Your task to perform on an android device: toggle airplane mode Image 0: 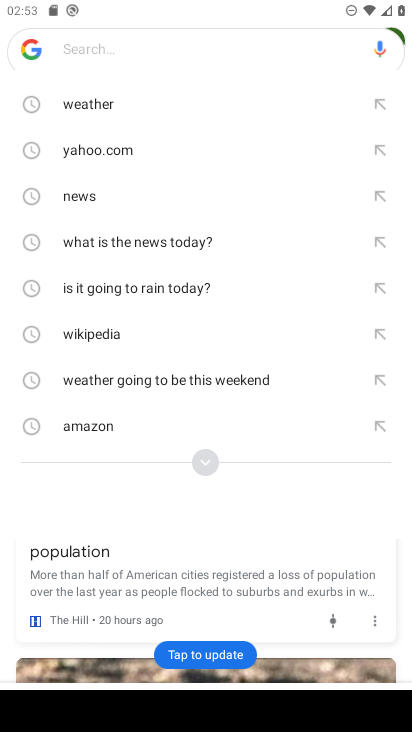
Step 0: press home button
Your task to perform on an android device: toggle airplane mode Image 1: 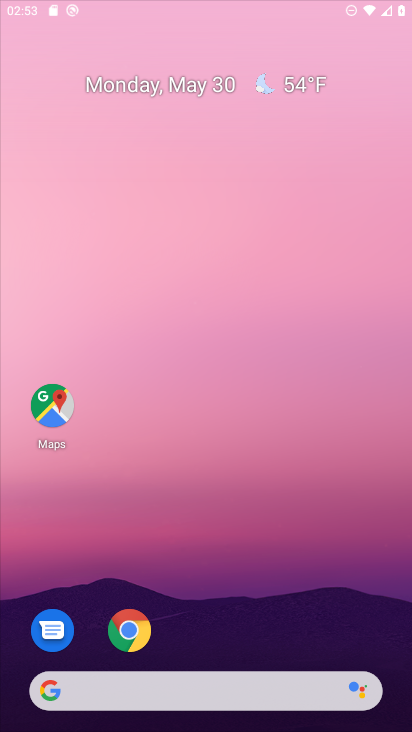
Step 1: drag from (249, 696) to (321, 176)
Your task to perform on an android device: toggle airplane mode Image 2: 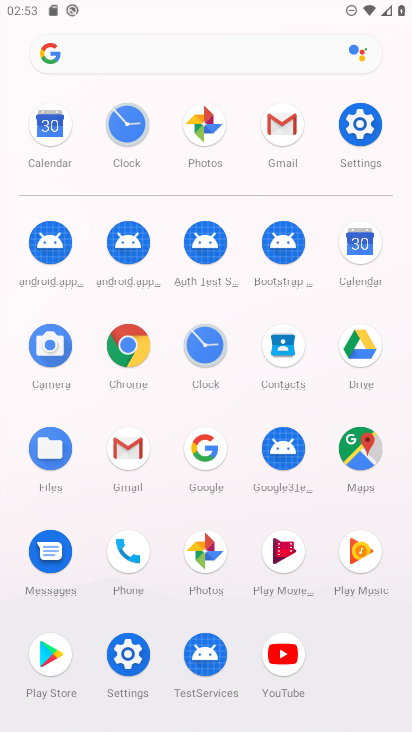
Step 2: click (367, 119)
Your task to perform on an android device: toggle airplane mode Image 3: 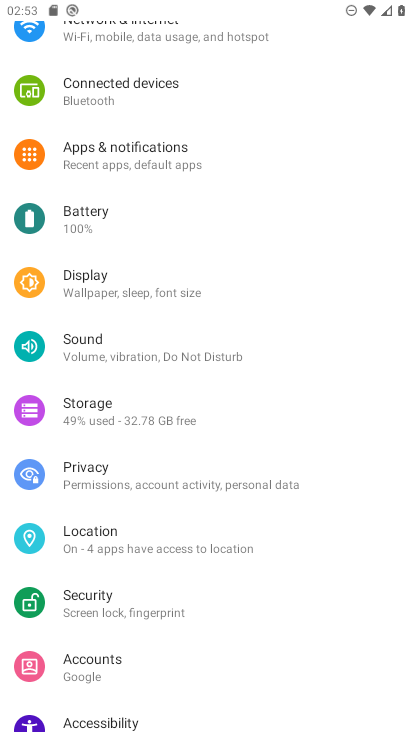
Step 3: drag from (231, 95) to (111, 561)
Your task to perform on an android device: toggle airplane mode Image 4: 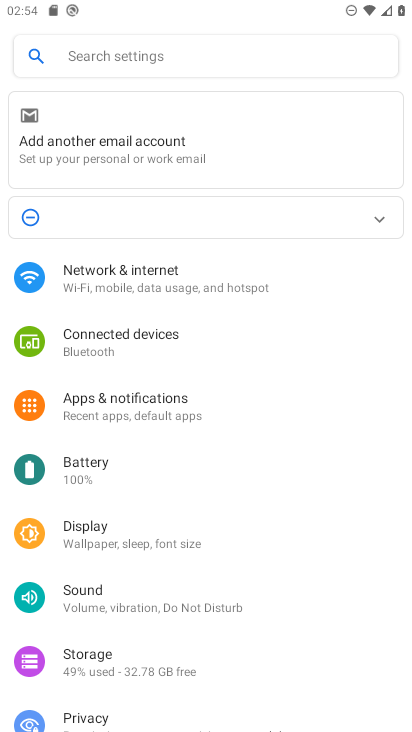
Step 4: click (133, 276)
Your task to perform on an android device: toggle airplane mode Image 5: 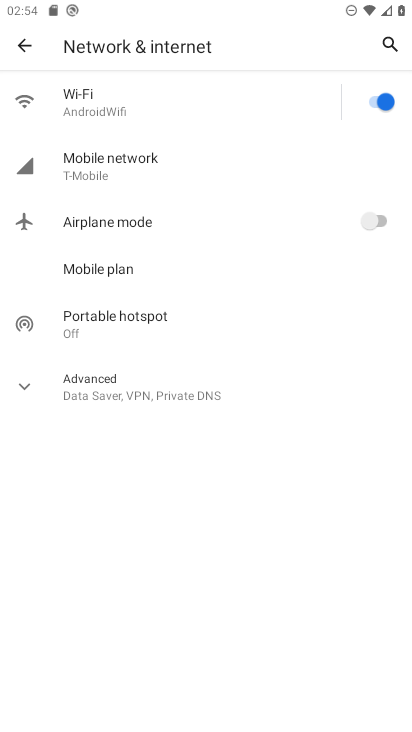
Step 5: click (386, 223)
Your task to perform on an android device: toggle airplane mode Image 6: 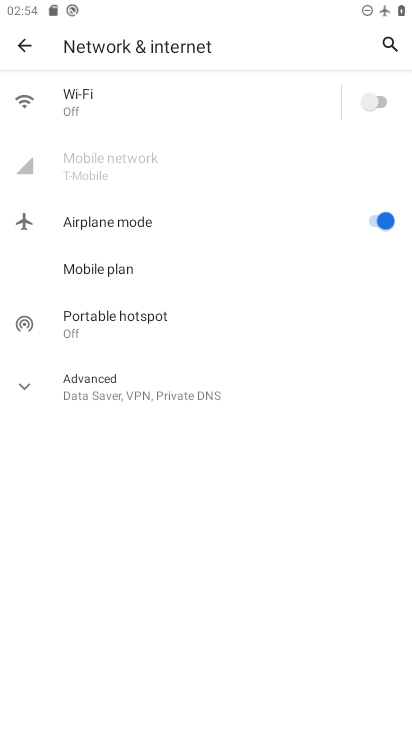
Step 6: task complete